Your task to perform on an android device: change the clock display to digital Image 0: 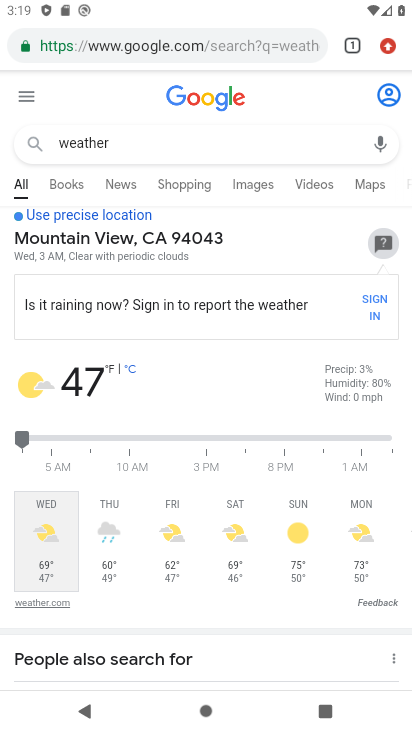
Step 0: press home button
Your task to perform on an android device: change the clock display to digital Image 1: 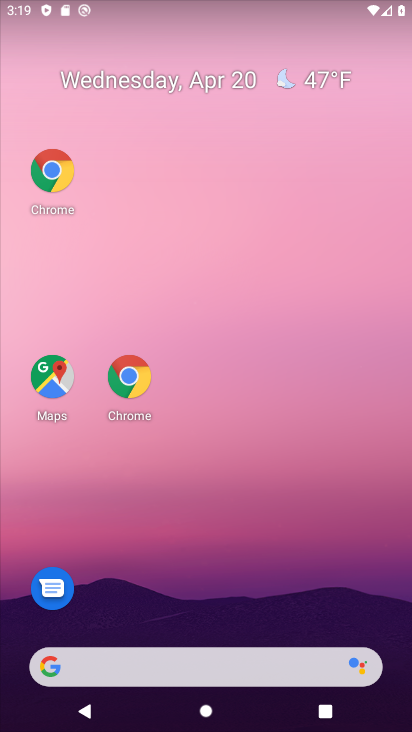
Step 1: drag from (323, 485) to (304, 26)
Your task to perform on an android device: change the clock display to digital Image 2: 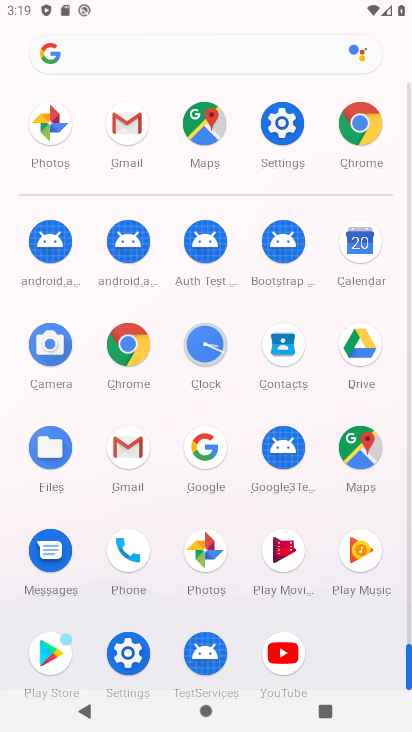
Step 2: click (203, 346)
Your task to perform on an android device: change the clock display to digital Image 3: 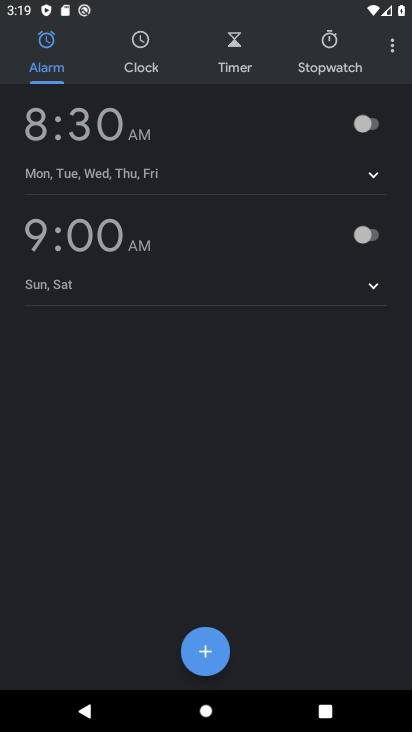
Step 3: click (392, 40)
Your task to perform on an android device: change the clock display to digital Image 4: 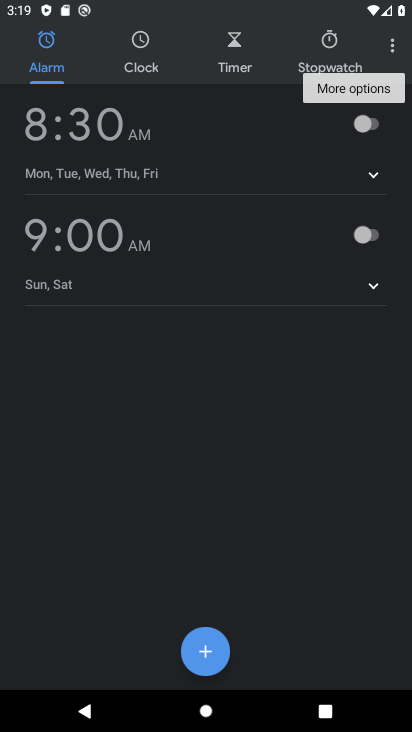
Step 4: click (391, 52)
Your task to perform on an android device: change the clock display to digital Image 5: 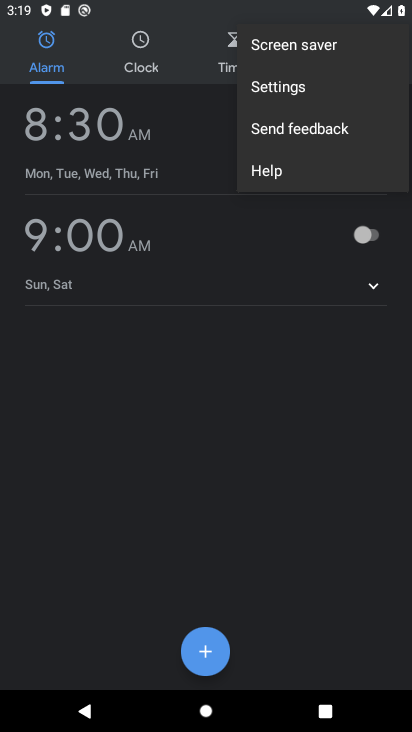
Step 5: click (332, 91)
Your task to perform on an android device: change the clock display to digital Image 6: 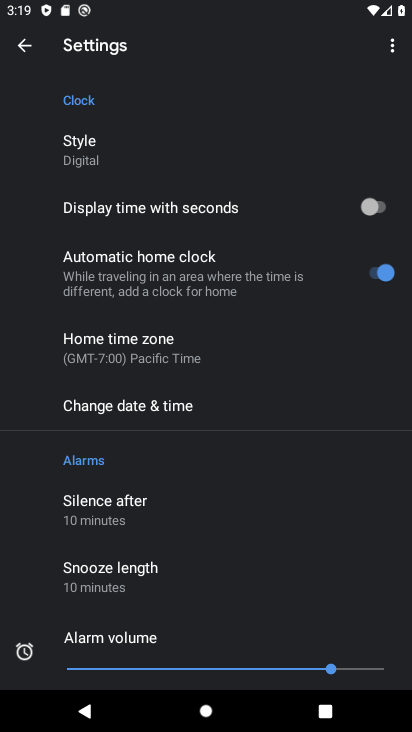
Step 6: task complete